Your task to perform on an android device: uninstall "NewsBreak: Local News & Alerts" Image 0: 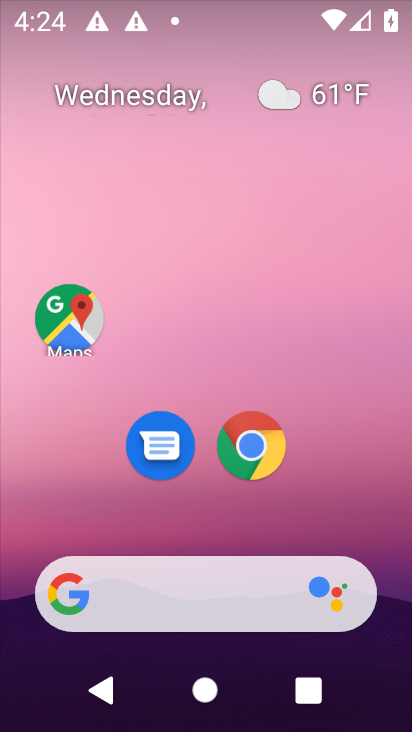
Step 0: drag from (235, 546) to (232, 260)
Your task to perform on an android device: uninstall "NewsBreak: Local News & Alerts" Image 1: 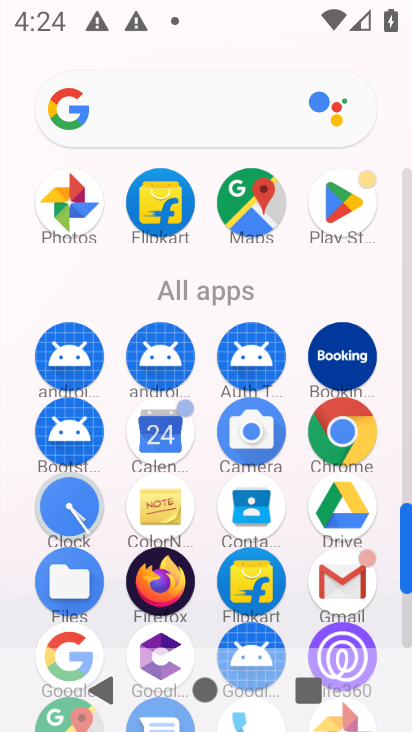
Step 1: click (341, 209)
Your task to perform on an android device: uninstall "NewsBreak: Local News & Alerts" Image 2: 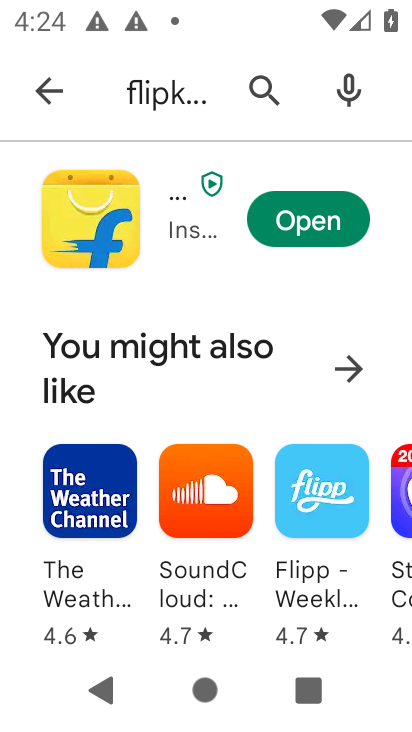
Step 2: click (180, 102)
Your task to perform on an android device: uninstall "NewsBreak: Local News & Alerts" Image 3: 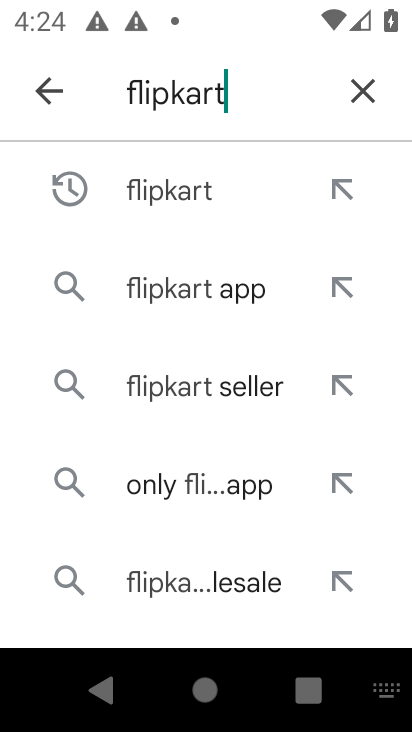
Step 3: click (348, 83)
Your task to perform on an android device: uninstall "NewsBreak: Local News & Alerts" Image 4: 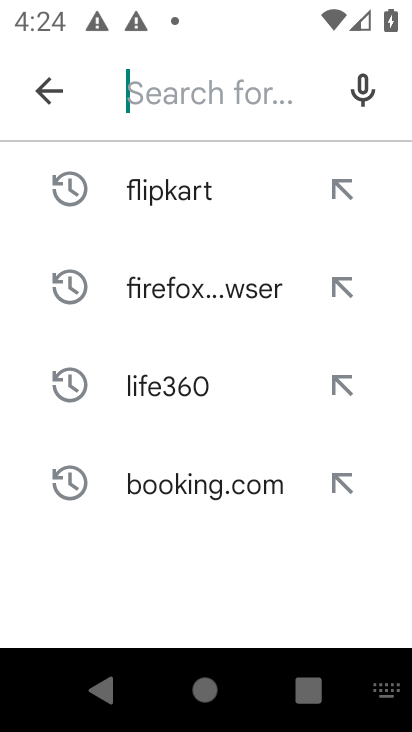
Step 4: type "NewsBreak"
Your task to perform on an android device: uninstall "NewsBreak: Local News & Alerts" Image 5: 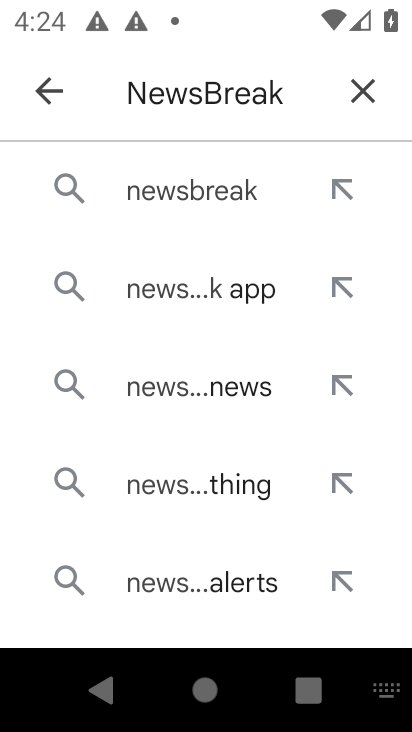
Step 5: click (218, 207)
Your task to perform on an android device: uninstall "NewsBreak: Local News & Alerts" Image 6: 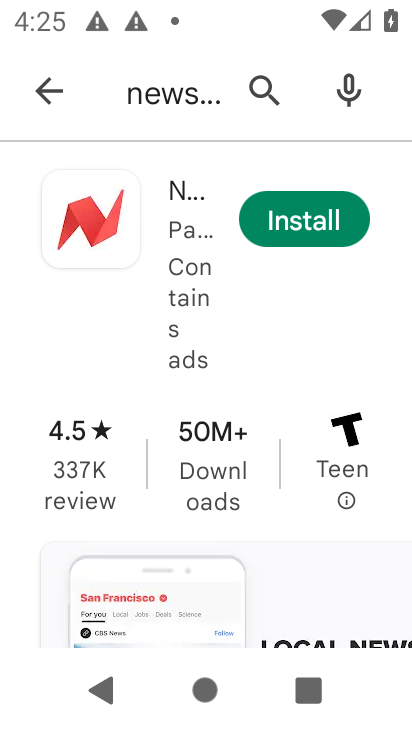
Step 6: task complete